Your task to perform on an android device: refresh tabs in the chrome app Image 0: 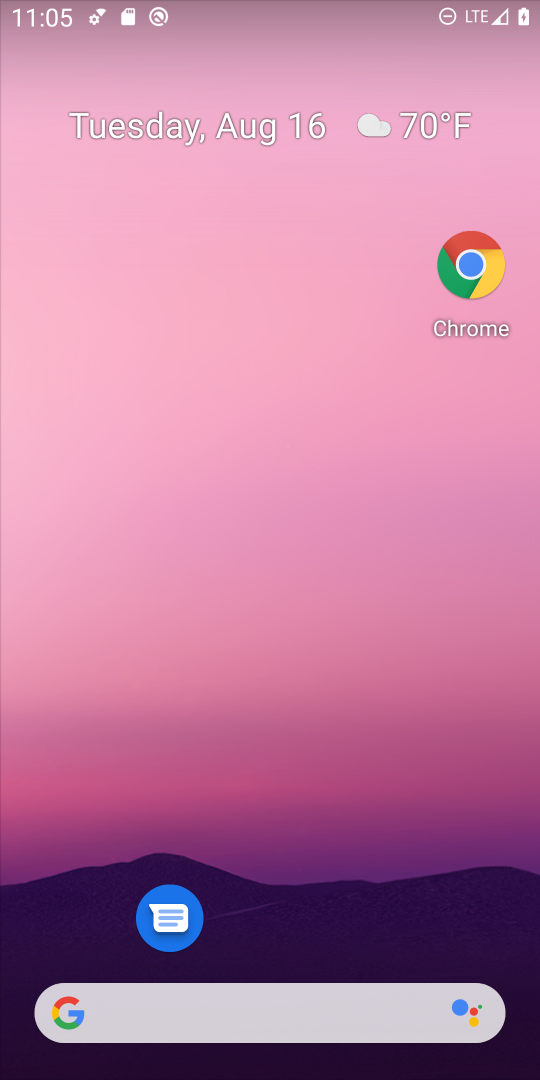
Step 0: drag from (211, 972) to (341, 220)
Your task to perform on an android device: refresh tabs in the chrome app Image 1: 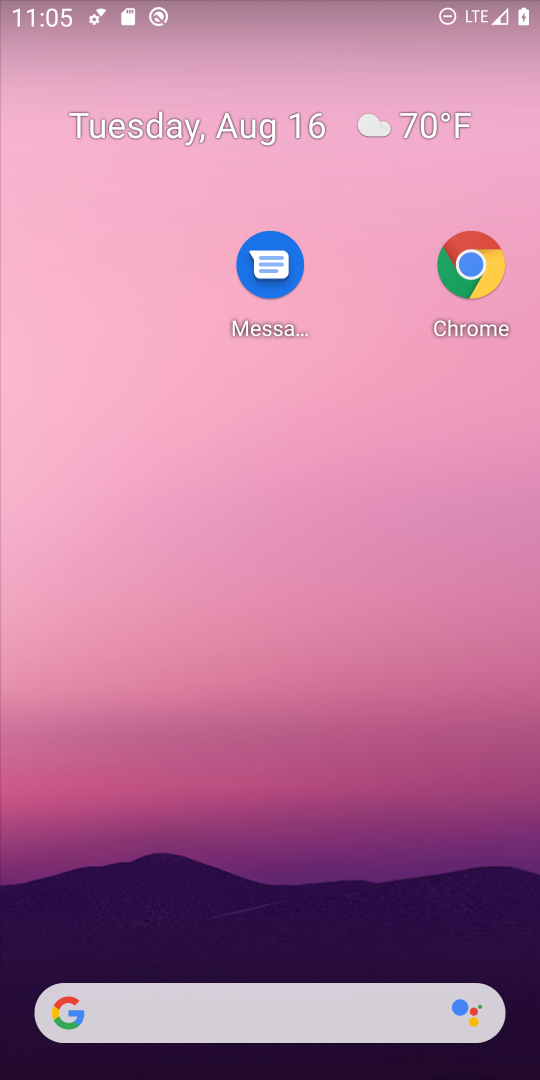
Step 1: click (413, 479)
Your task to perform on an android device: refresh tabs in the chrome app Image 2: 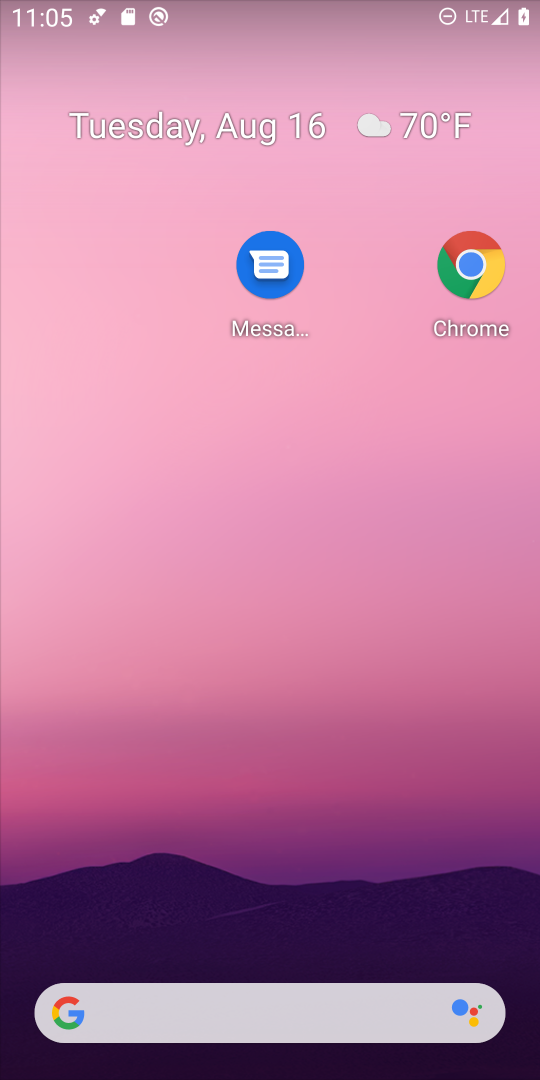
Step 2: click (485, 314)
Your task to perform on an android device: refresh tabs in the chrome app Image 3: 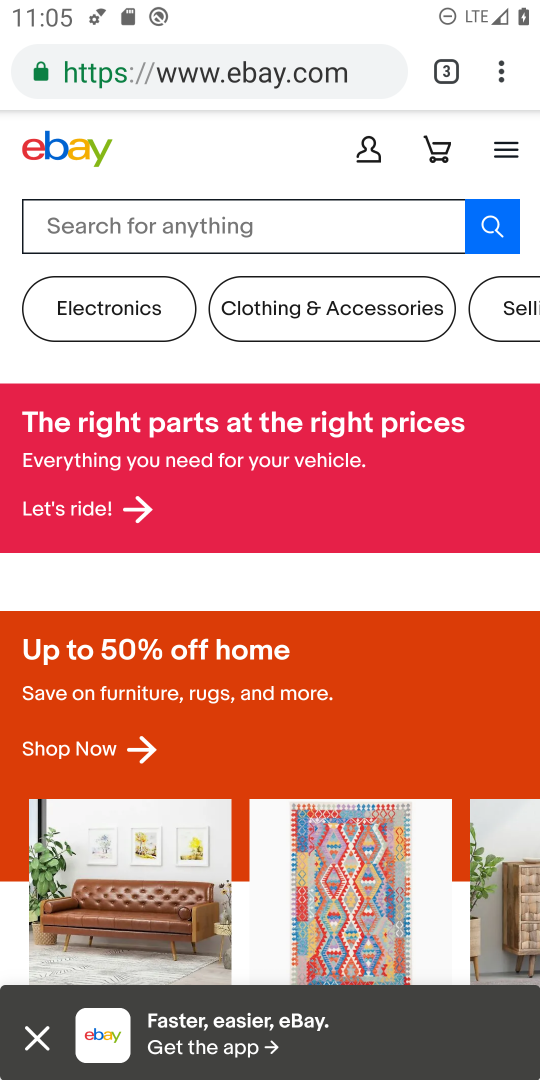
Step 3: click (507, 75)
Your task to perform on an android device: refresh tabs in the chrome app Image 4: 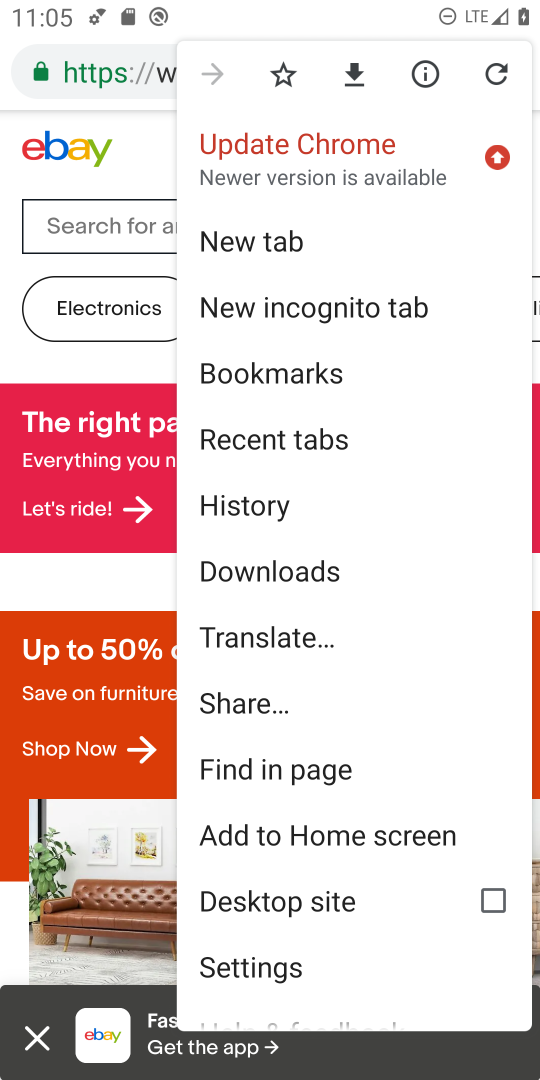
Step 4: click (502, 75)
Your task to perform on an android device: refresh tabs in the chrome app Image 5: 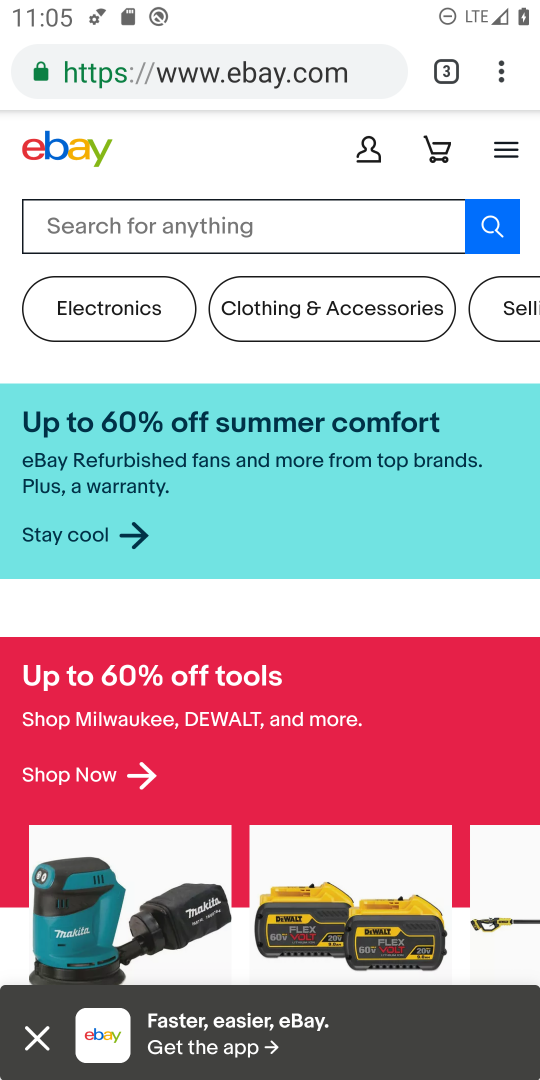
Step 5: task complete